Your task to perform on an android device: Open Chrome and go to the settings page Image 0: 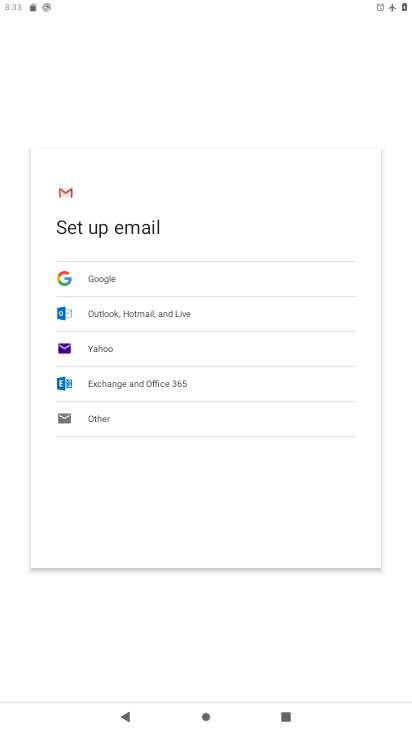
Step 0: press home button
Your task to perform on an android device: Open Chrome and go to the settings page Image 1: 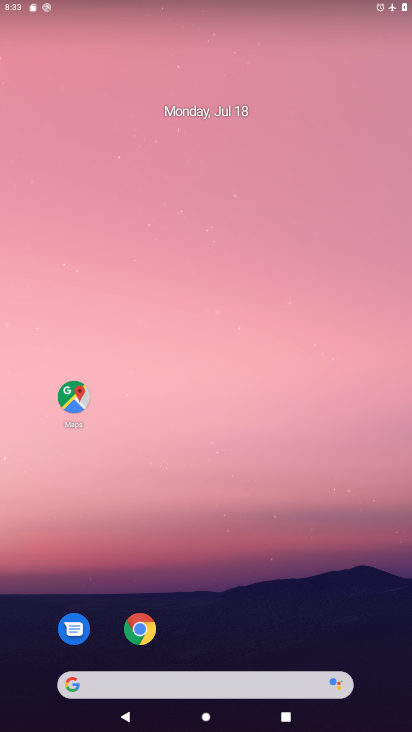
Step 1: click (145, 632)
Your task to perform on an android device: Open Chrome and go to the settings page Image 2: 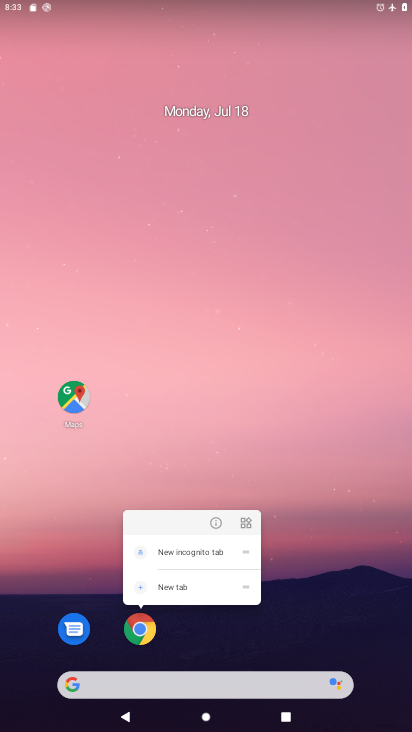
Step 2: click (148, 634)
Your task to perform on an android device: Open Chrome and go to the settings page Image 3: 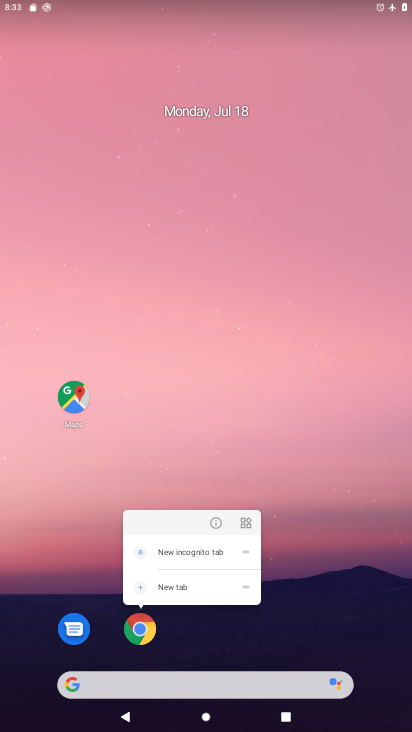
Step 3: click (148, 634)
Your task to perform on an android device: Open Chrome and go to the settings page Image 4: 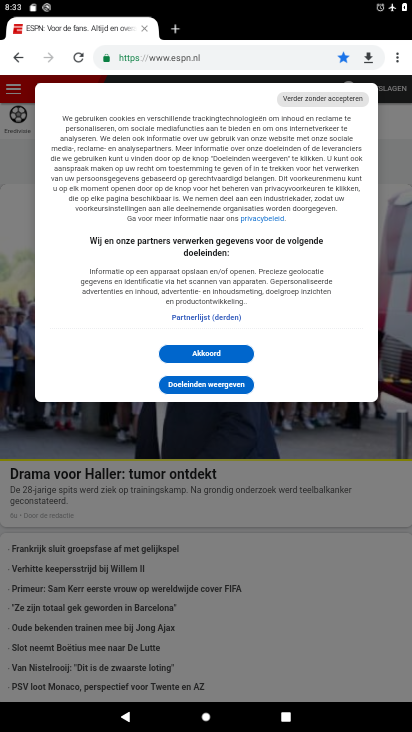
Step 4: click (392, 58)
Your task to perform on an android device: Open Chrome and go to the settings page Image 5: 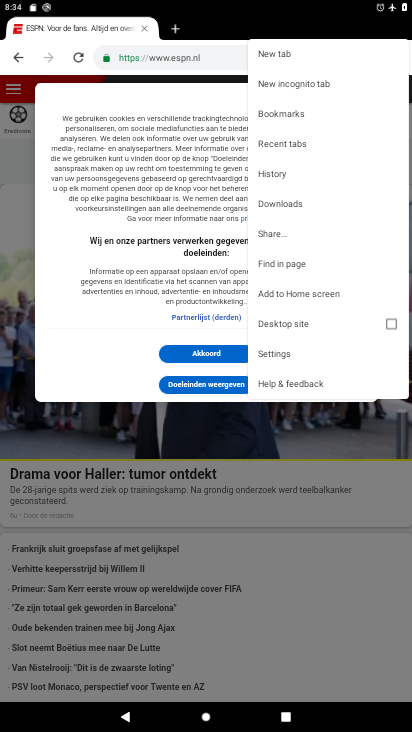
Step 5: click (280, 355)
Your task to perform on an android device: Open Chrome and go to the settings page Image 6: 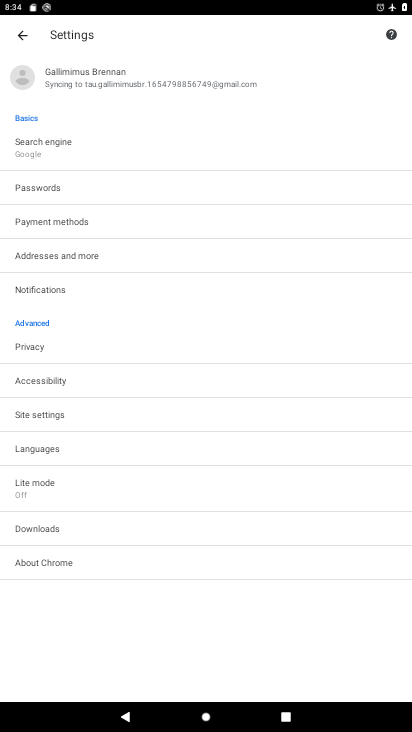
Step 6: click (56, 418)
Your task to perform on an android device: Open Chrome and go to the settings page Image 7: 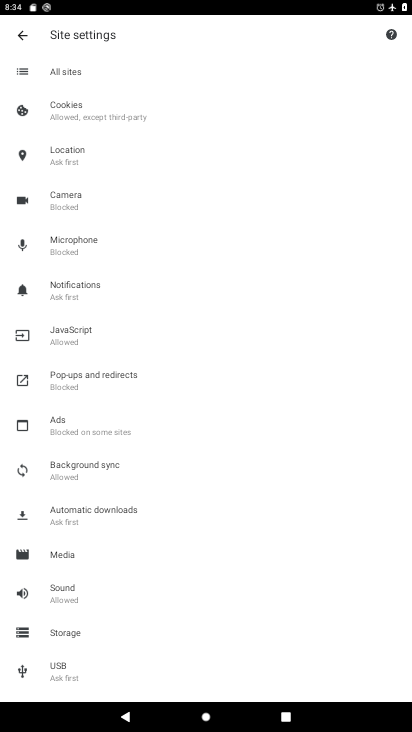
Step 7: task complete